Your task to perform on an android device: toggle javascript in the chrome app Image 0: 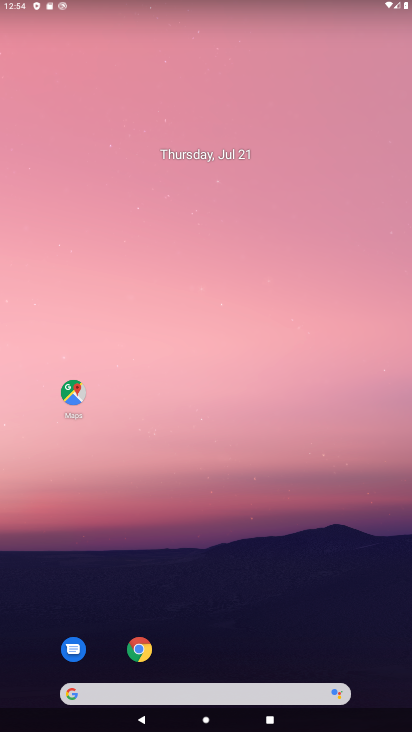
Step 0: click (141, 652)
Your task to perform on an android device: toggle javascript in the chrome app Image 1: 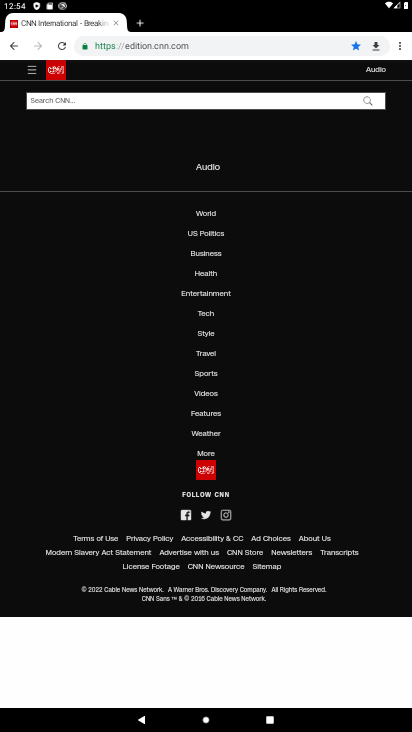
Step 1: click (401, 47)
Your task to perform on an android device: toggle javascript in the chrome app Image 2: 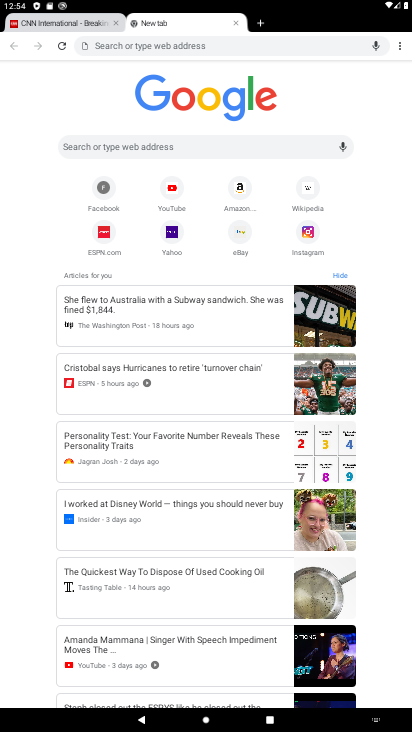
Step 2: click (401, 47)
Your task to perform on an android device: toggle javascript in the chrome app Image 3: 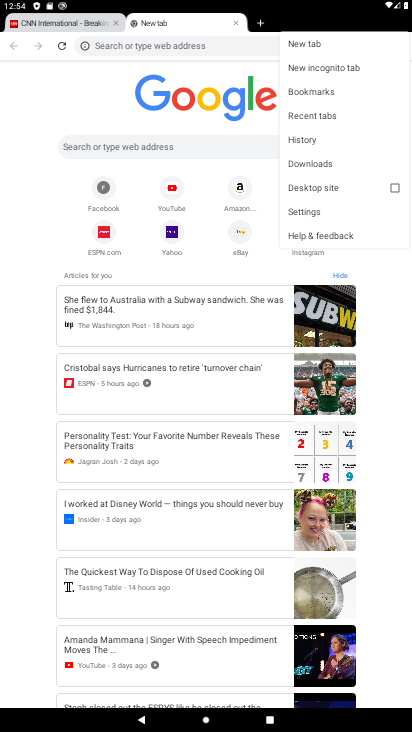
Step 3: click (346, 211)
Your task to perform on an android device: toggle javascript in the chrome app Image 4: 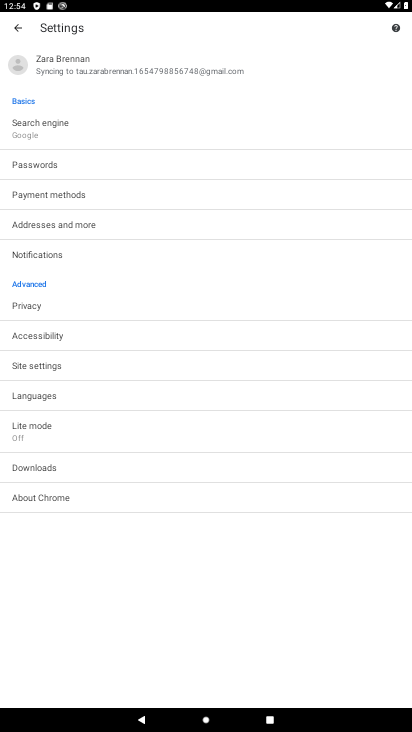
Step 4: click (170, 367)
Your task to perform on an android device: toggle javascript in the chrome app Image 5: 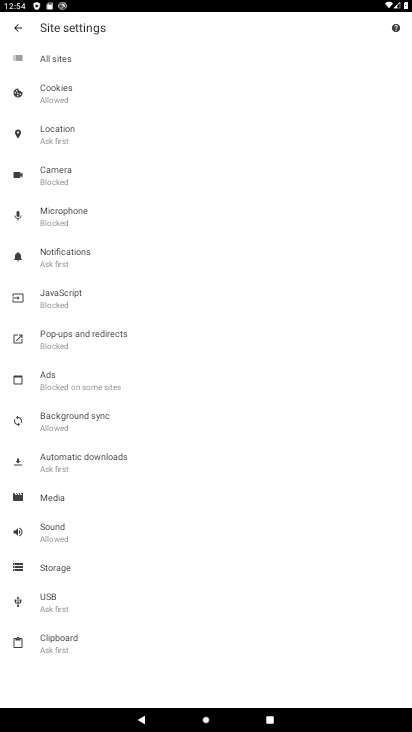
Step 5: click (115, 292)
Your task to perform on an android device: toggle javascript in the chrome app Image 6: 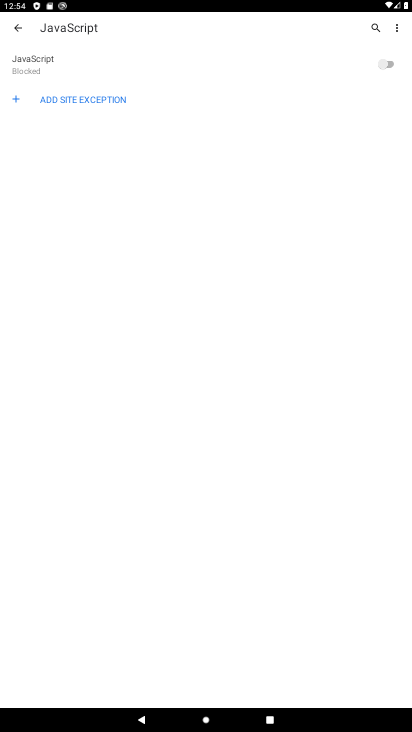
Step 6: click (389, 70)
Your task to perform on an android device: toggle javascript in the chrome app Image 7: 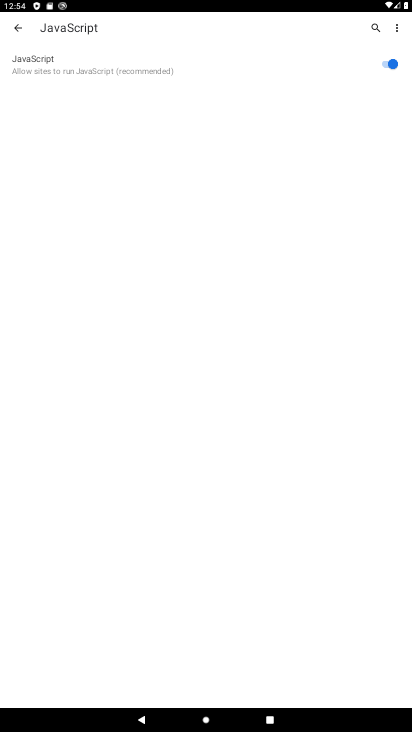
Step 7: task complete